Your task to perform on an android device: turn off notifications settings in the gmail app Image 0: 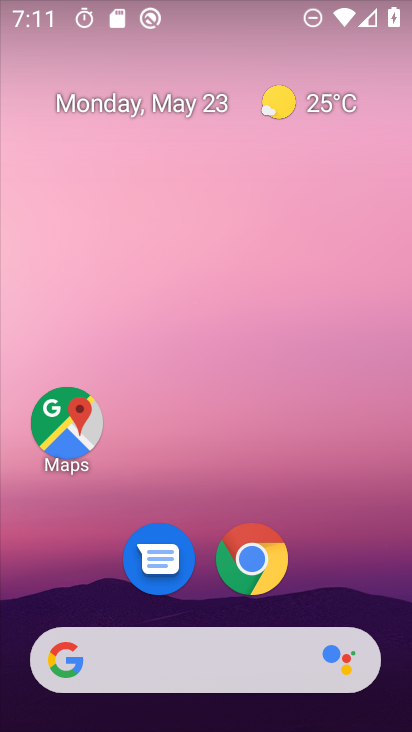
Step 0: drag from (389, 616) to (315, 58)
Your task to perform on an android device: turn off notifications settings in the gmail app Image 1: 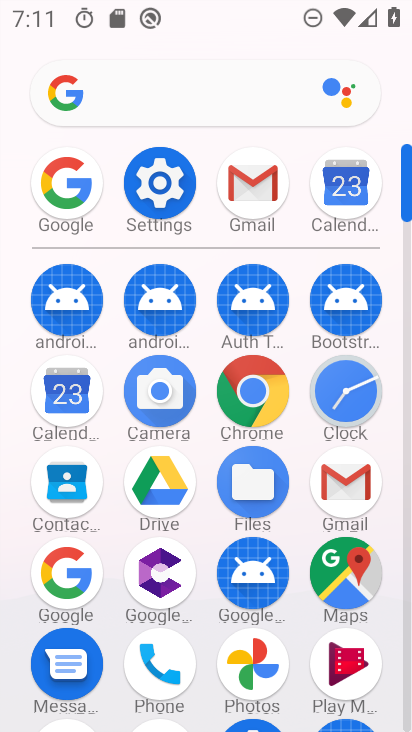
Step 1: click (339, 465)
Your task to perform on an android device: turn off notifications settings in the gmail app Image 2: 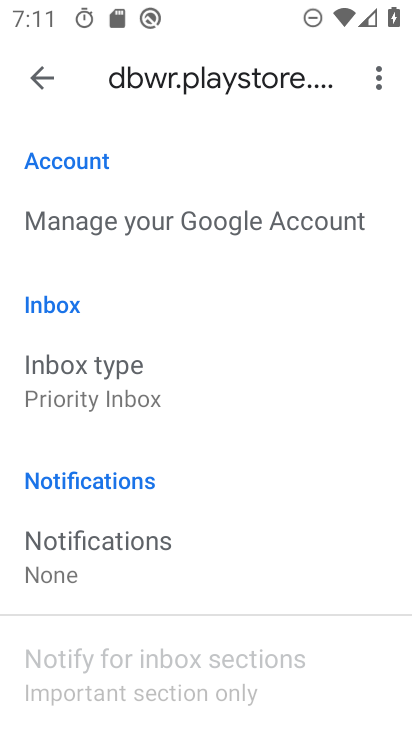
Step 2: click (214, 606)
Your task to perform on an android device: turn off notifications settings in the gmail app Image 3: 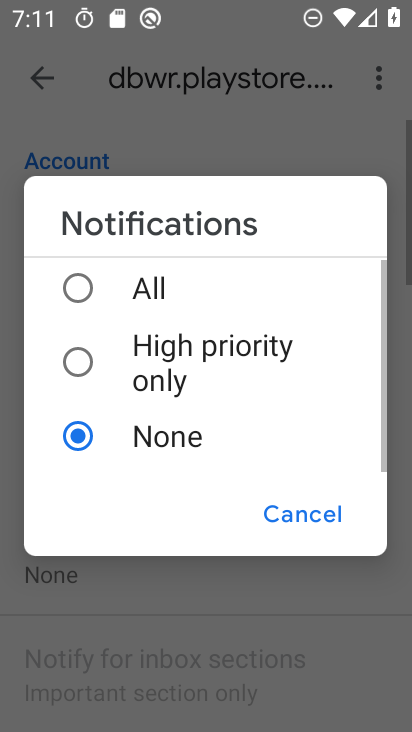
Step 3: click (76, 441)
Your task to perform on an android device: turn off notifications settings in the gmail app Image 4: 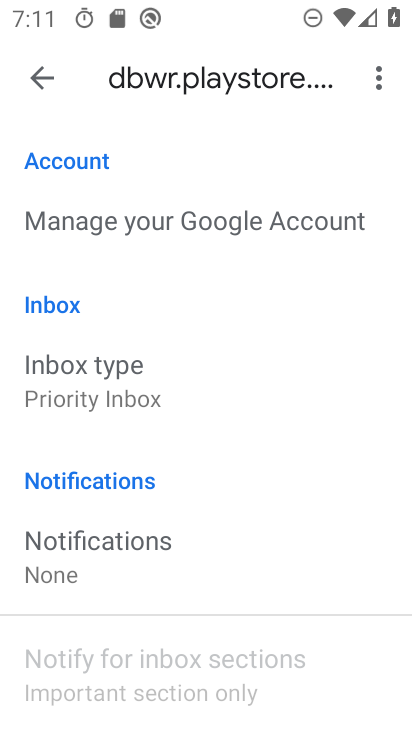
Step 4: task complete